Your task to perform on an android device: change the clock display to show seconds Image 0: 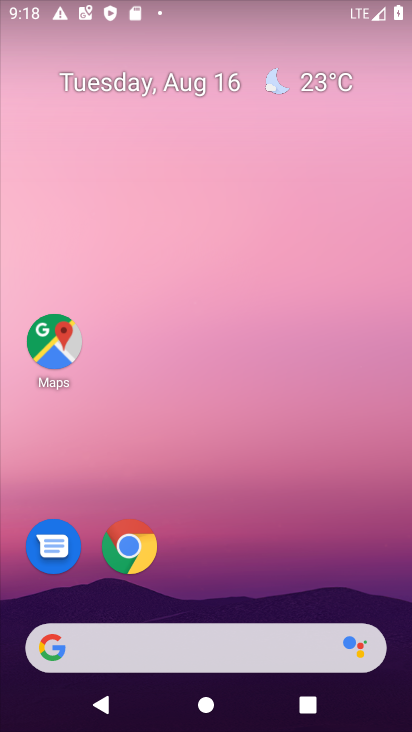
Step 0: drag from (224, 560) to (266, 0)
Your task to perform on an android device: change the clock display to show seconds Image 1: 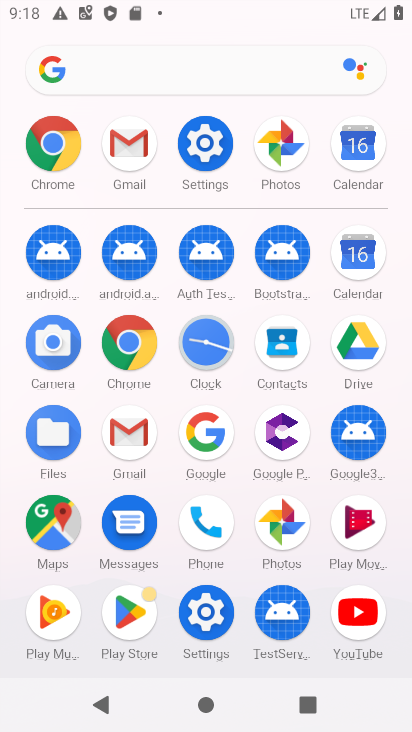
Step 1: click (203, 341)
Your task to perform on an android device: change the clock display to show seconds Image 2: 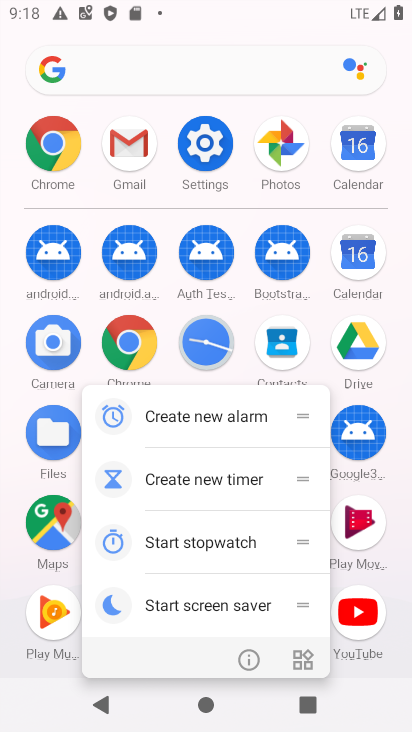
Step 2: click (203, 341)
Your task to perform on an android device: change the clock display to show seconds Image 3: 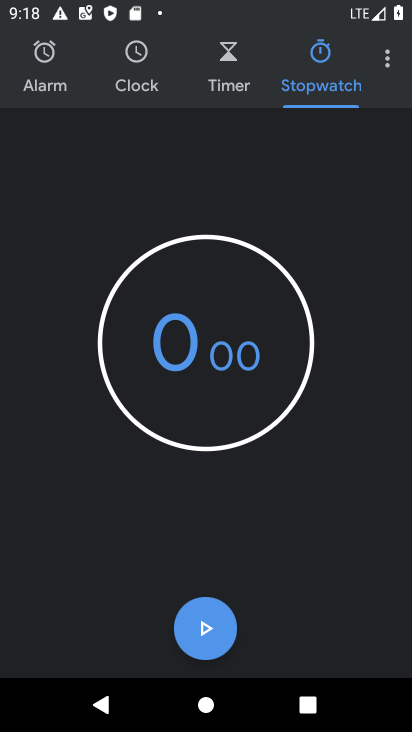
Step 3: click (138, 68)
Your task to perform on an android device: change the clock display to show seconds Image 4: 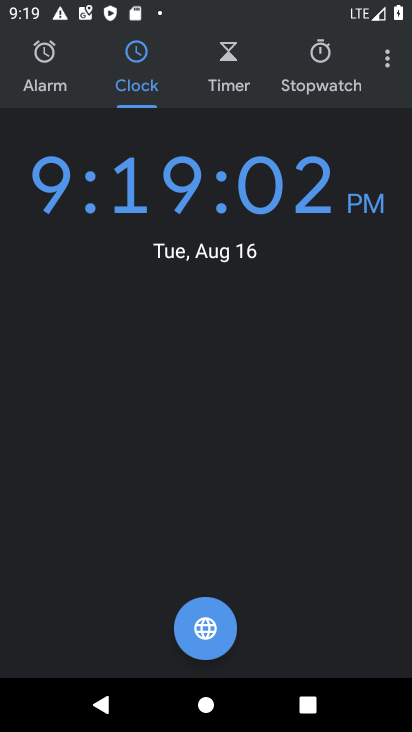
Step 4: task complete